Your task to perform on an android device: empty trash in google photos Image 0: 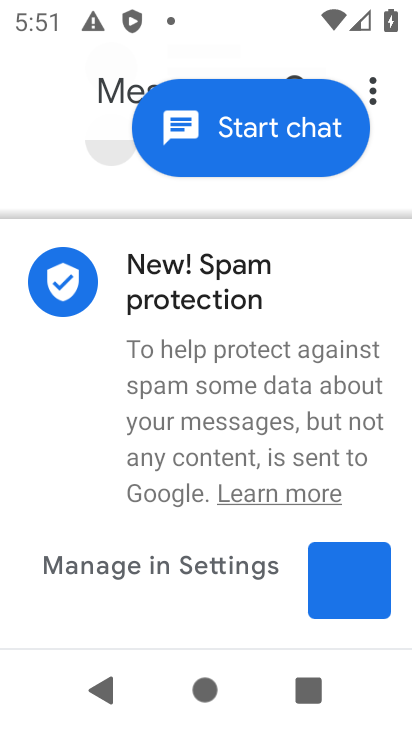
Step 0: press home button
Your task to perform on an android device: empty trash in google photos Image 1: 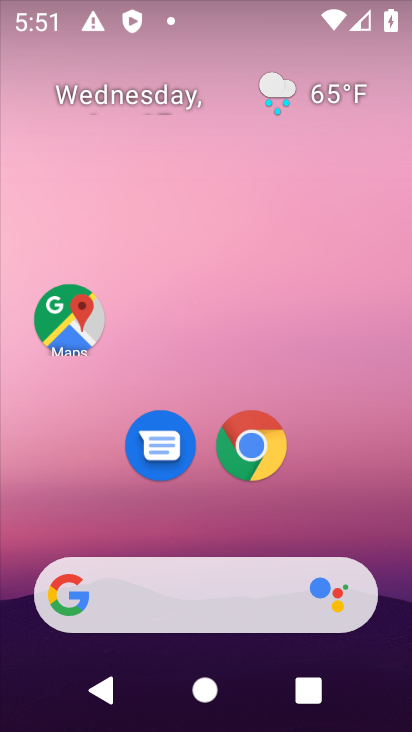
Step 1: drag from (242, 506) to (198, 177)
Your task to perform on an android device: empty trash in google photos Image 2: 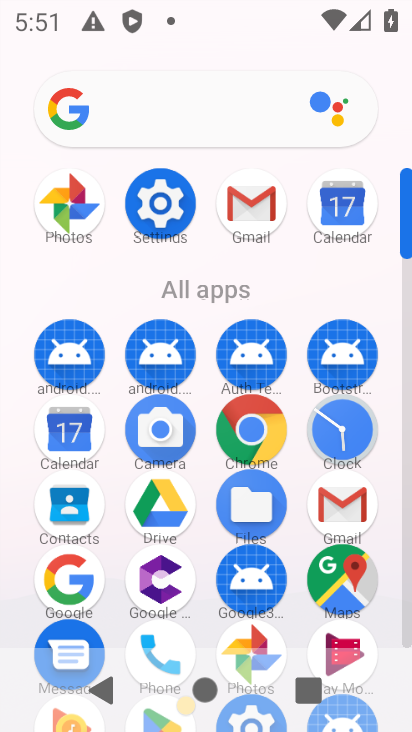
Step 2: click (85, 214)
Your task to perform on an android device: empty trash in google photos Image 3: 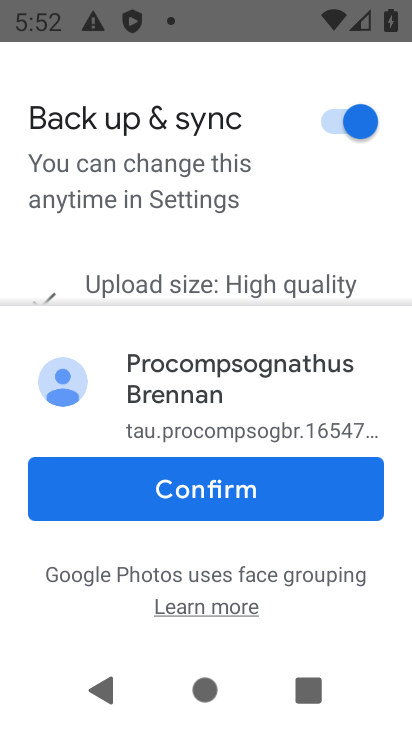
Step 3: click (269, 498)
Your task to perform on an android device: empty trash in google photos Image 4: 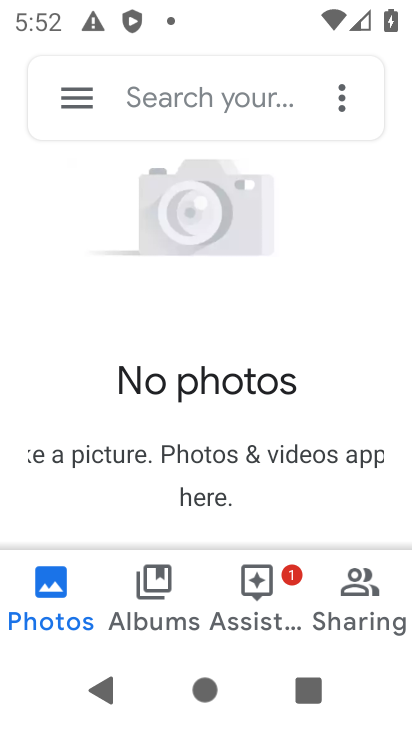
Step 4: click (94, 98)
Your task to perform on an android device: empty trash in google photos Image 5: 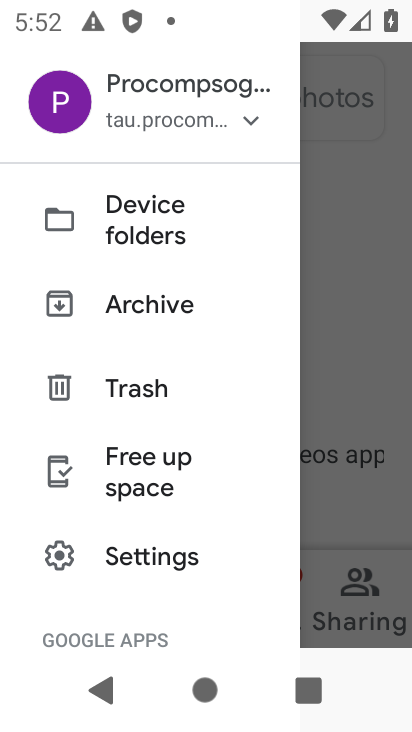
Step 5: drag from (130, 484) to (131, 309)
Your task to perform on an android device: empty trash in google photos Image 6: 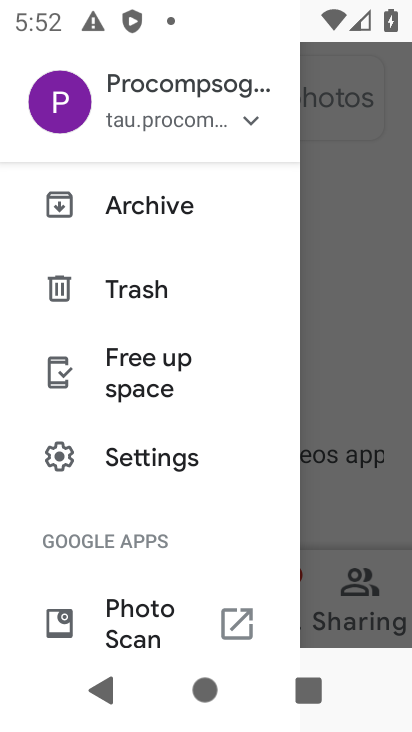
Step 6: click (121, 279)
Your task to perform on an android device: empty trash in google photos Image 7: 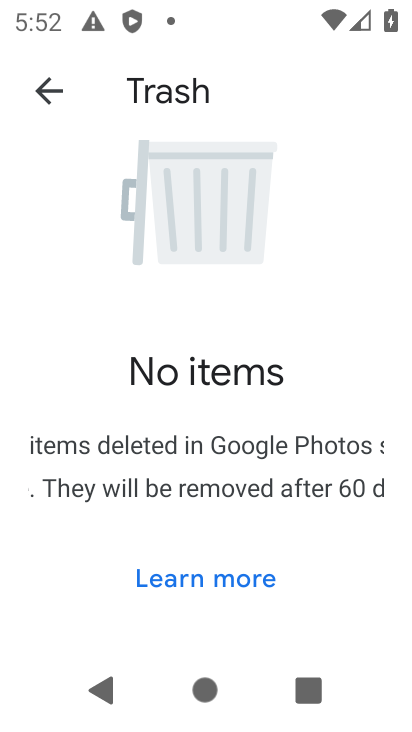
Step 7: task complete